Your task to perform on an android device: open app "Expedia: Hotels, Flights & Car" (install if not already installed) and enter user name: "crusader@outlook.com" and password: "Toryize" Image 0: 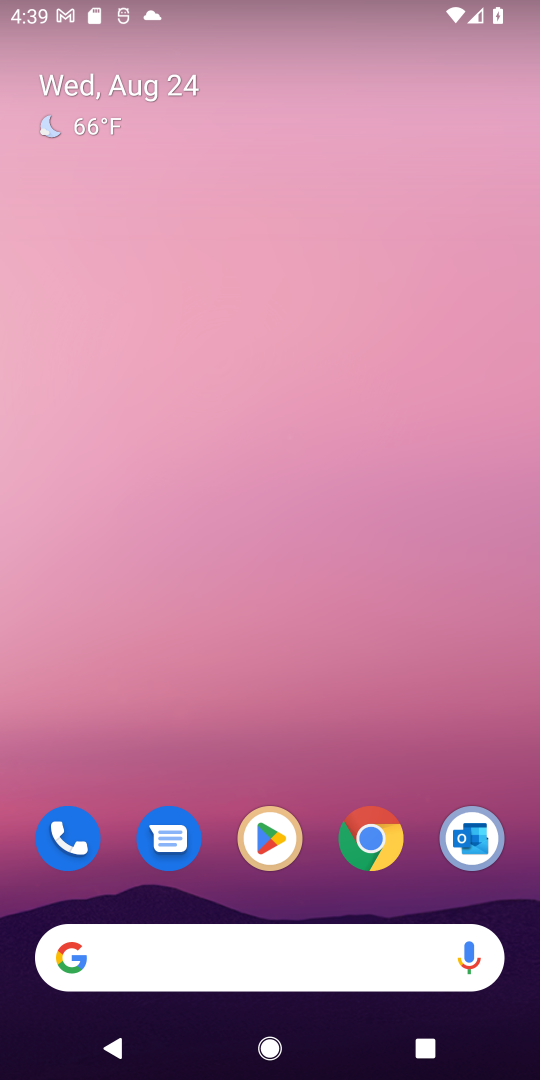
Step 0: press home button
Your task to perform on an android device: open app "Expedia: Hotels, Flights & Car" (install if not already installed) and enter user name: "crusader@outlook.com" and password: "Toryize" Image 1: 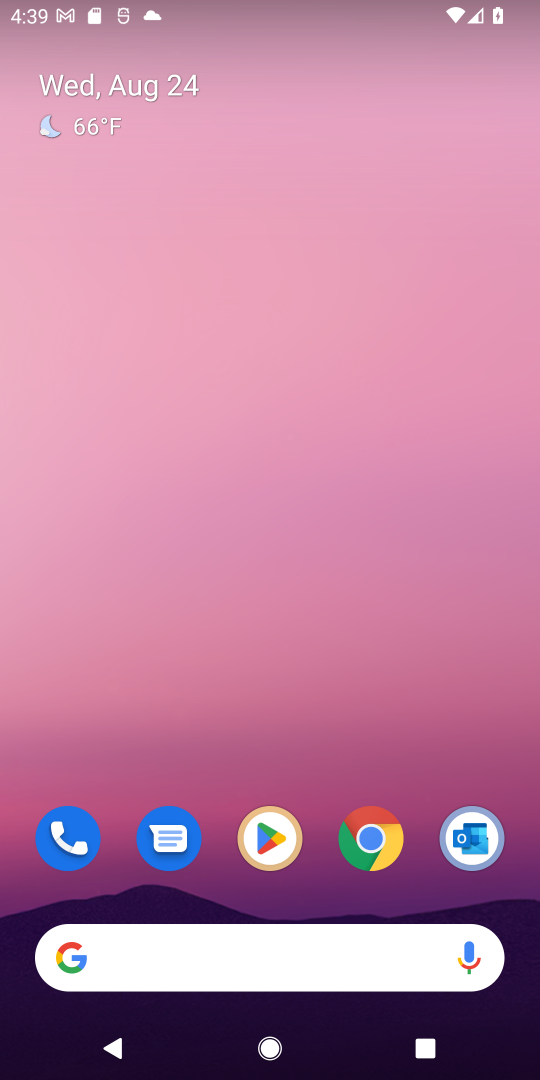
Step 1: click (266, 833)
Your task to perform on an android device: open app "Expedia: Hotels, Flights & Car" (install if not already installed) and enter user name: "crusader@outlook.com" and password: "Toryize" Image 2: 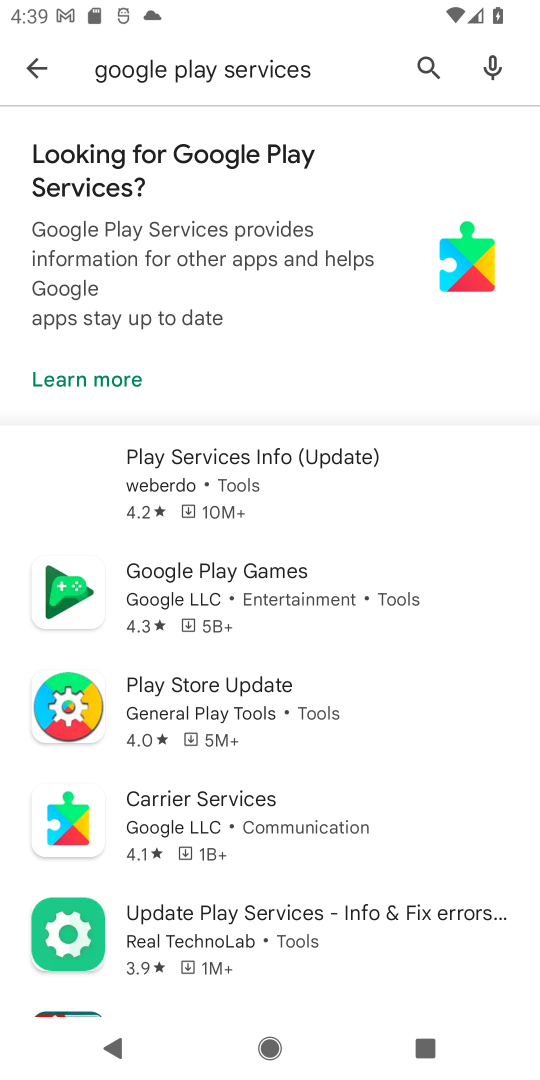
Step 2: click (427, 67)
Your task to perform on an android device: open app "Expedia: Hotels, Flights & Car" (install if not already installed) and enter user name: "crusader@outlook.com" and password: "Toryize" Image 3: 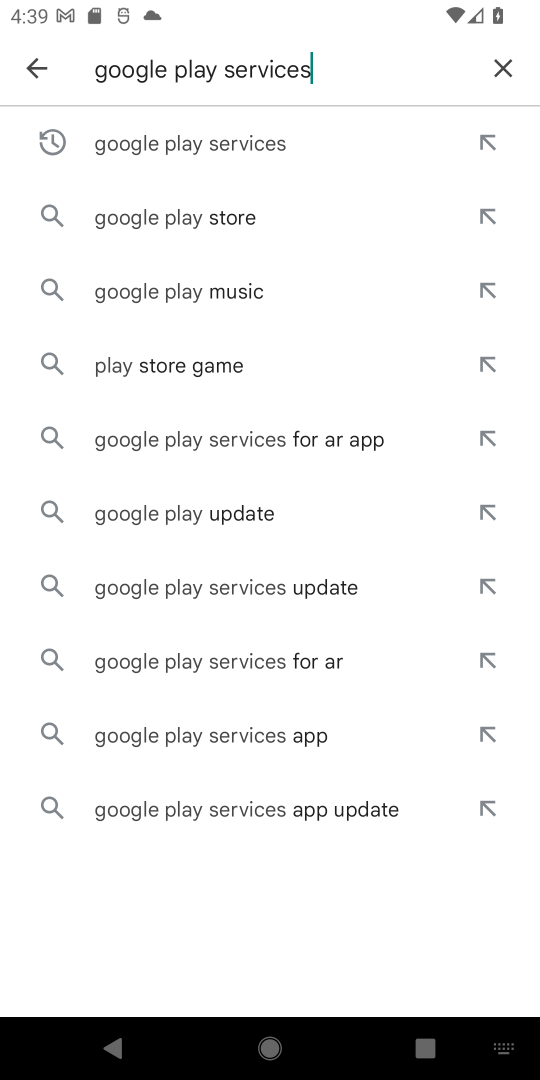
Step 3: click (507, 65)
Your task to perform on an android device: open app "Expedia: Hotels, Flights & Car" (install if not already installed) and enter user name: "crusader@outlook.com" and password: "Toryize" Image 4: 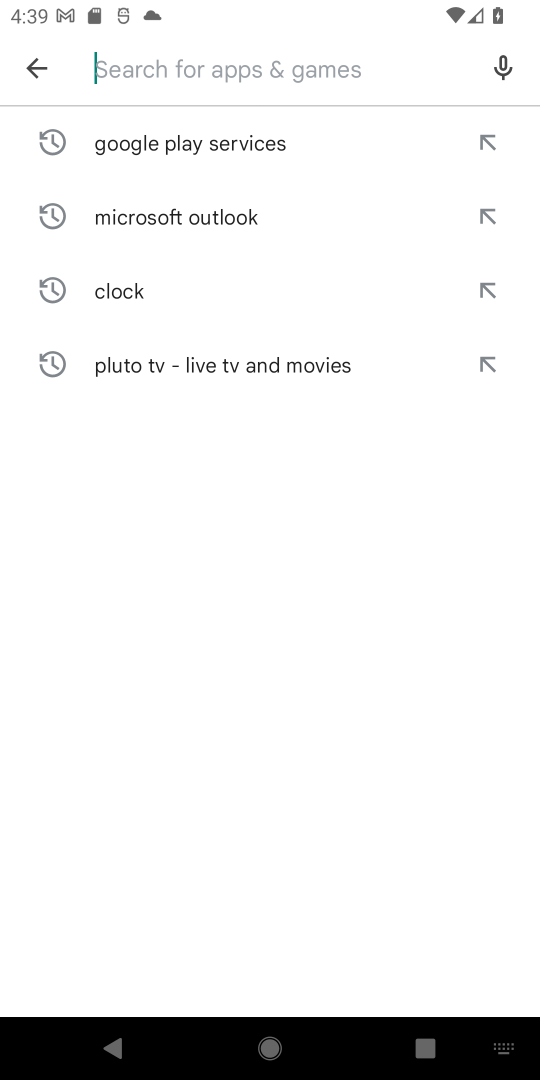
Step 4: type "Expedia: Hotels, Flights & Car"
Your task to perform on an android device: open app "Expedia: Hotels, Flights & Car" (install if not already installed) and enter user name: "crusader@outlook.com" and password: "Toryize" Image 5: 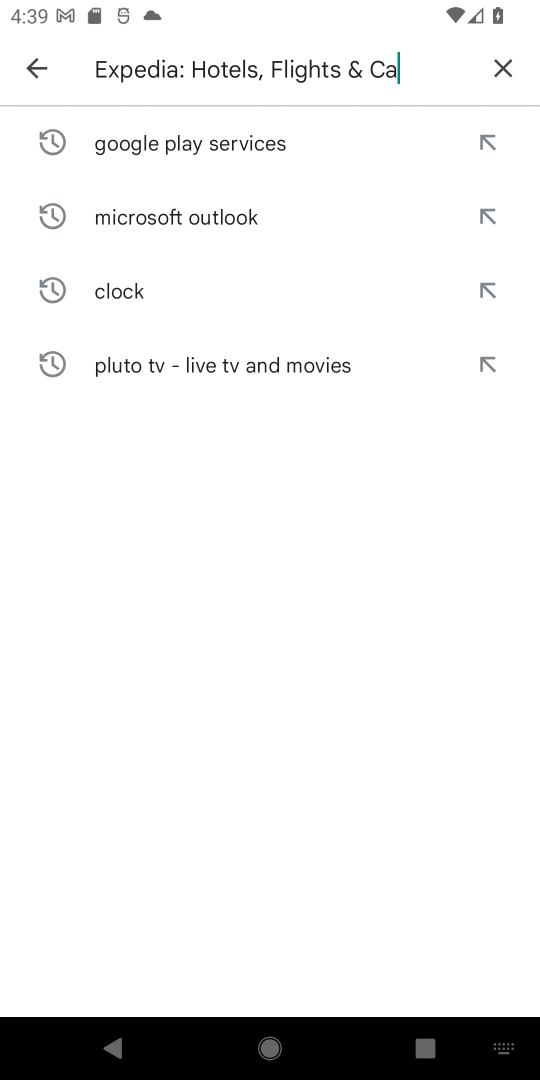
Step 5: type ""
Your task to perform on an android device: open app "Expedia: Hotels, Flights & Car" (install if not already installed) and enter user name: "crusader@outlook.com" and password: "Toryize" Image 6: 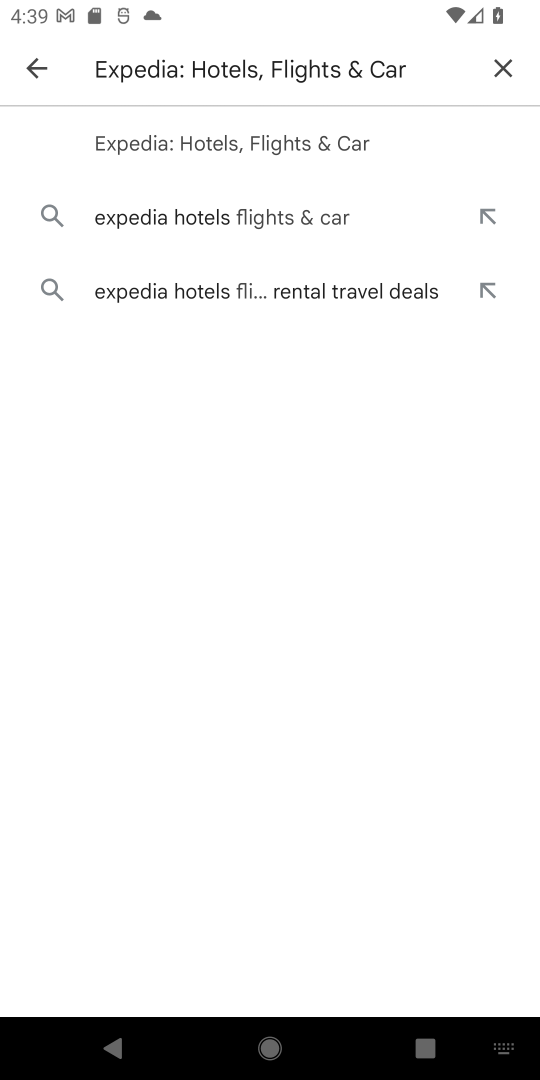
Step 6: click (312, 145)
Your task to perform on an android device: open app "Expedia: Hotels, Flights & Car" (install if not already installed) and enter user name: "crusader@outlook.com" and password: "Toryize" Image 7: 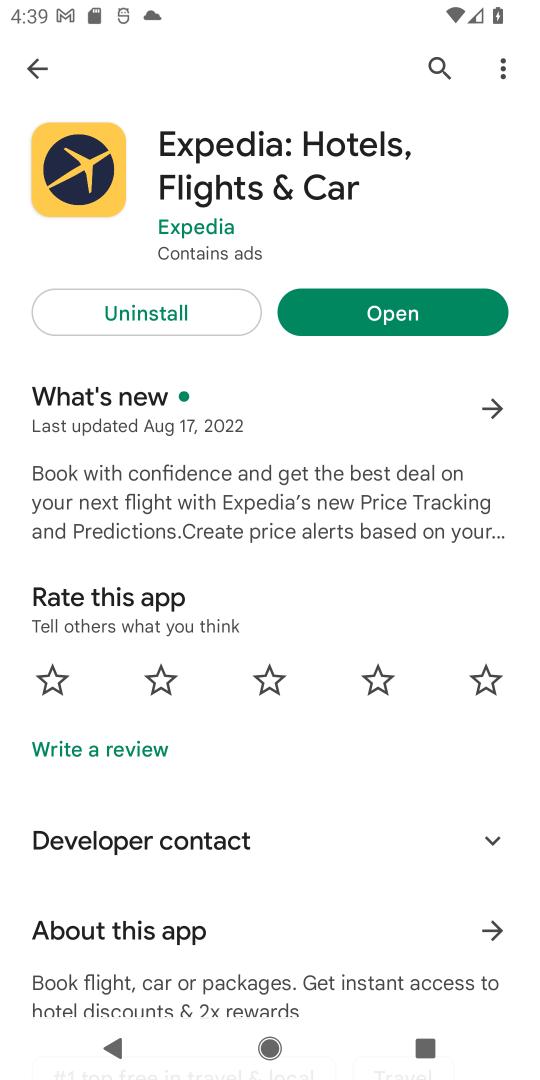
Step 7: click (389, 308)
Your task to perform on an android device: open app "Expedia: Hotels, Flights & Car" (install if not already installed) and enter user name: "crusader@outlook.com" and password: "Toryize" Image 8: 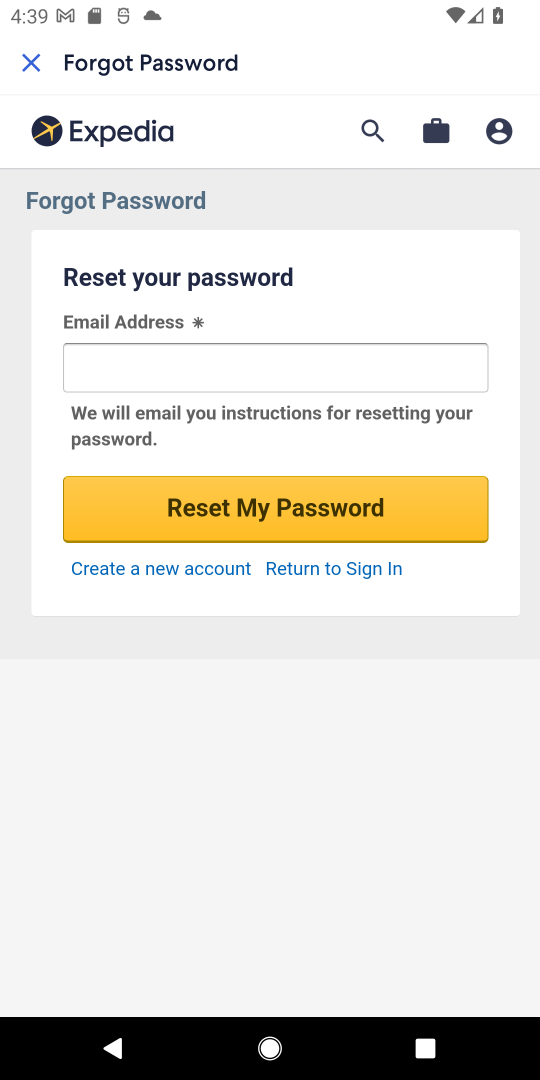
Step 8: click (29, 63)
Your task to perform on an android device: open app "Expedia: Hotels, Flights & Car" (install if not already installed) and enter user name: "crusader@outlook.com" and password: "Toryize" Image 9: 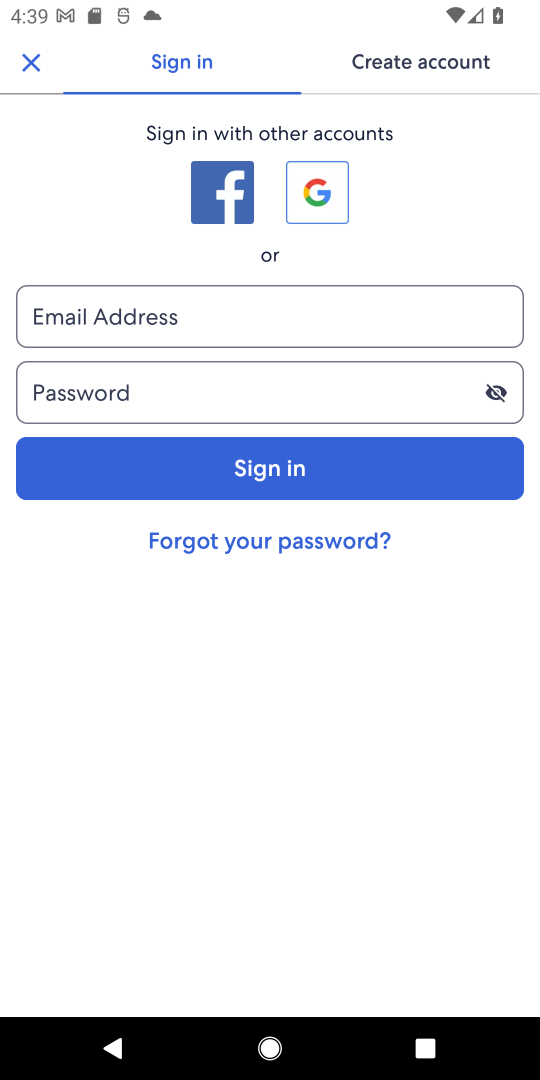
Step 9: click (149, 306)
Your task to perform on an android device: open app "Expedia: Hotels, Flights & Car" (install if not already installed) and enter user name: "crusader@outlook.com" and password: "Toryize" Image 10: 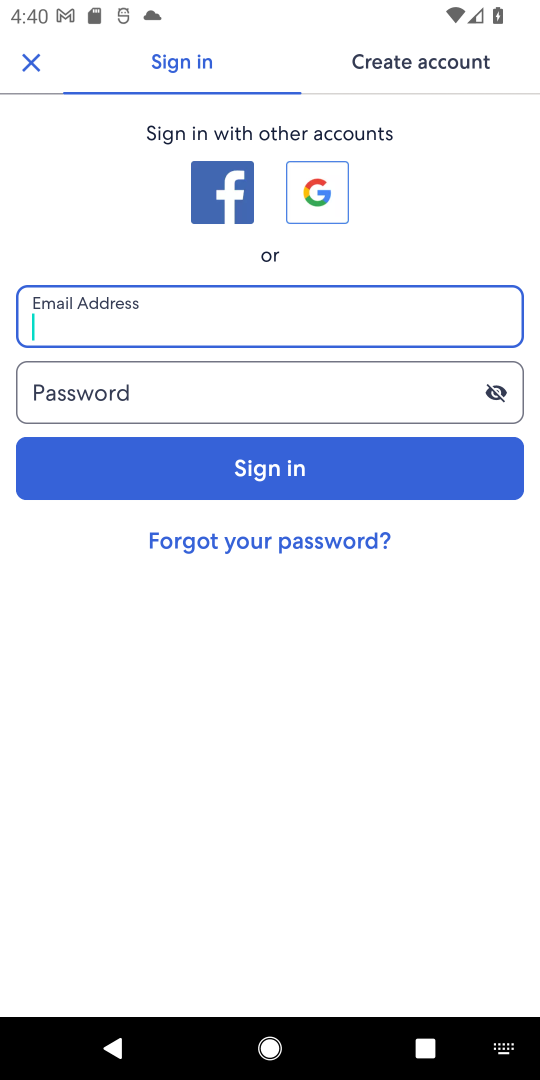
Step 10: type "crusader@outlook.com"
Your task to perform on an android device: open app "Expedia: Hotels, Flights & Car" (install if not already installed) and enter user name: "crusader@outlook.com" and password: "Toryize" Image 11: 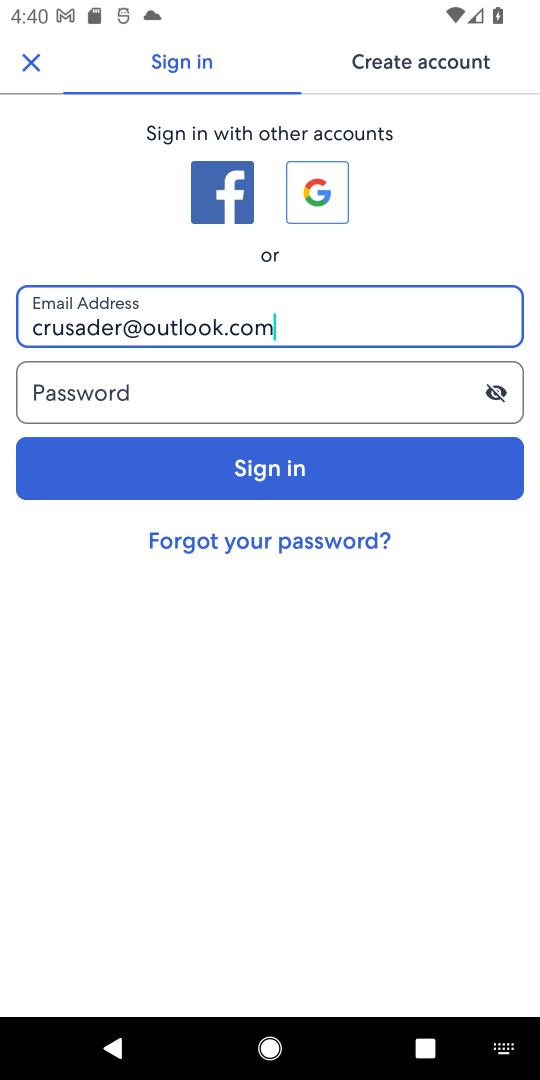
Step 11: click (98, 382)
Your task to perform on an android device: open app "Expedia: Hotels, Flights & Car" (install if not already installed) and enter user name: "crusader@outlook.com" and password: "Toryize" Image 12: 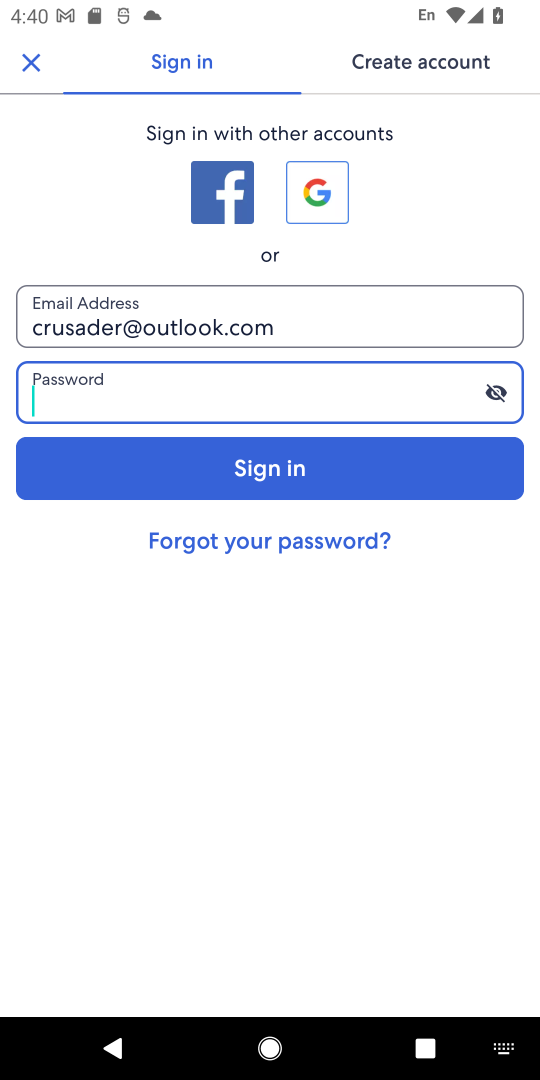
Step 12: type "Toryize"
Your task to perform on an android device: open app "Expedia: Hotels, Flights & Car" (install if not already installed) and enter user name: "crusader@outlook.com" and password: "Toryize" Image 13: 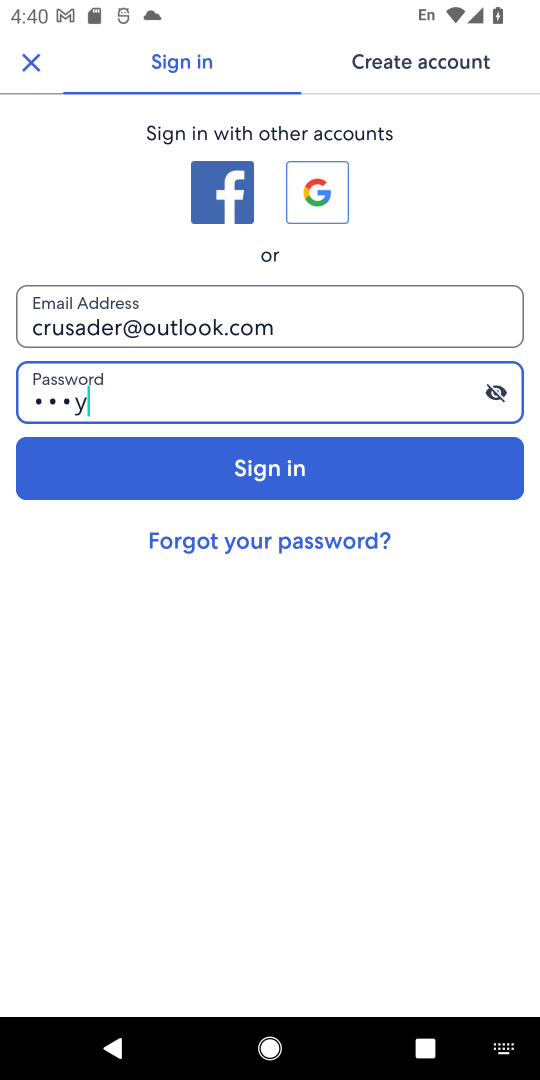
Step 13: type ""
Your task to perform on an android device: open app "Expedia: Hotels, Flights & Car" (install if not already installed) and enter user name: "crusader@outlook.com" and password: "Toryize" Image 14: 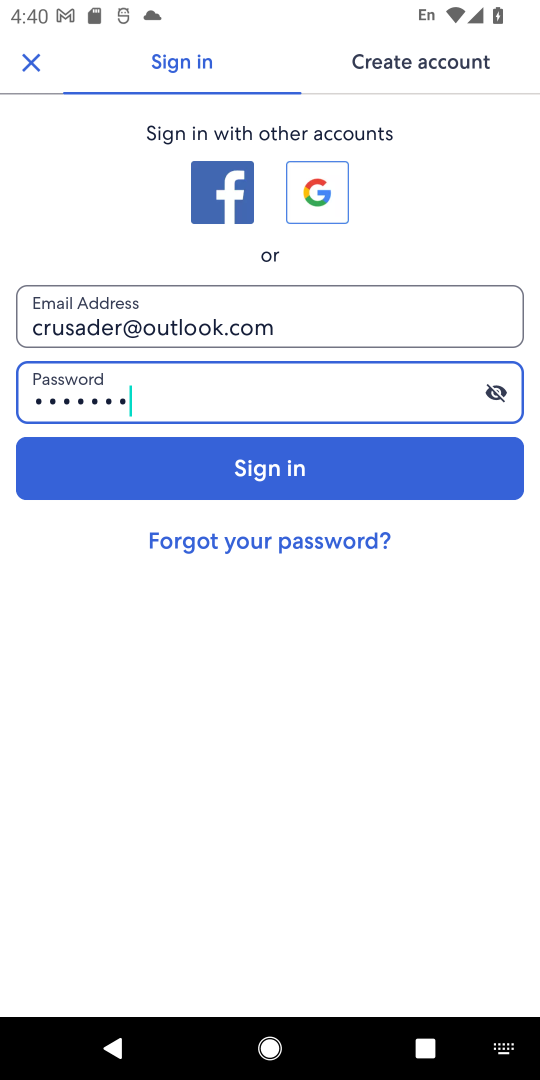
Step 14: click (285, 467)
Your task to perform on an android device: open app "Expedia: Hotels, Flights & Car" (install if not already installed) and enter user name: "crusader@outlook.com" and password: "Toryize" Image 15: 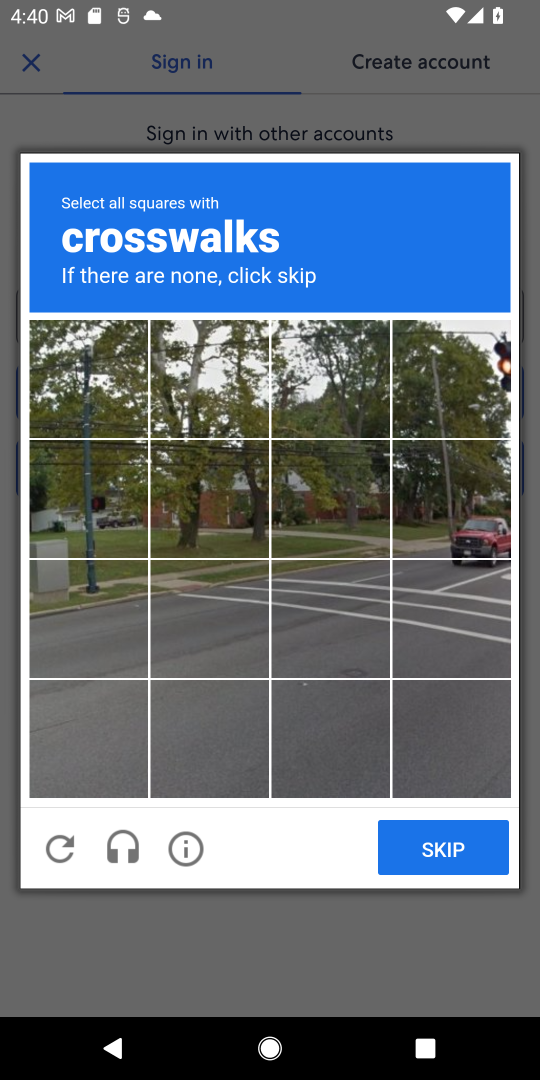
Step 15: click (208, 622)
Your task to perform on an android device: open app "Expedia: Hotels, Flights & Car" (install if not already installed) and enter user name: "crusader@outlook.com" and password: "Toryize" Image 16: 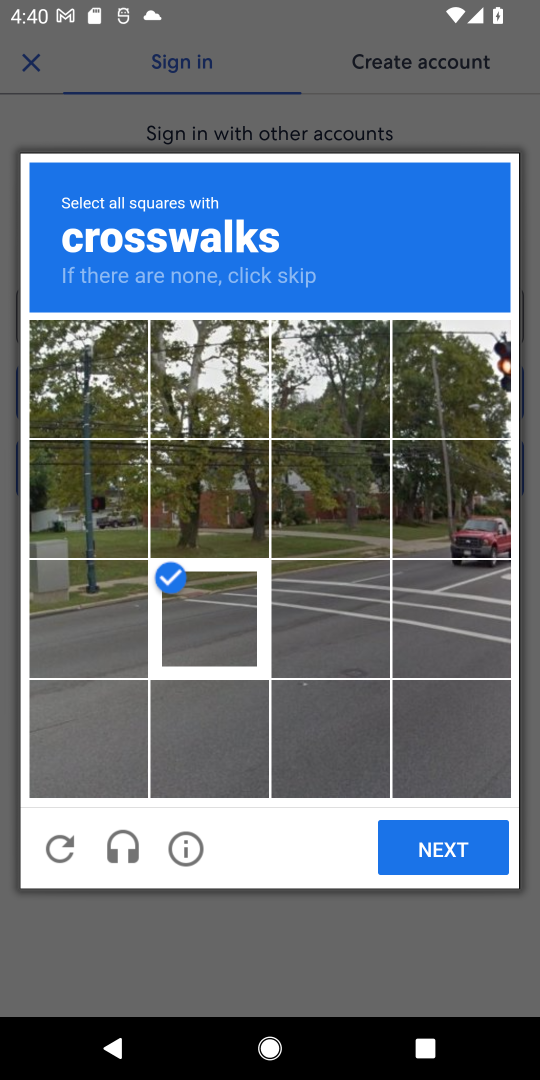
Step 16: click (323, 611)
Your task to perform on an android device: open app "Expedia: Hotels, Flights & Car" (install if not already installed) and enter user name: "crusader@outlook.com" and password: "Toryize" Image 17: 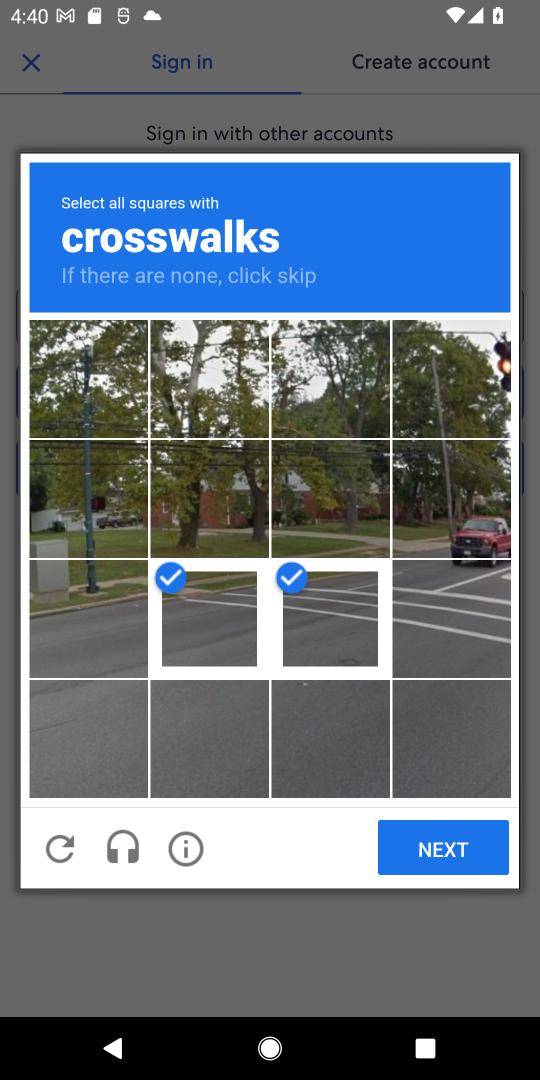
Step 17: click (444, 619)
Your task to perform on an android device: open app "Expedia: Hotels, Flights & Car" (install if not already installed) and enter user name: "crusader@outlook.com" and password: "Toryize" Image 18: 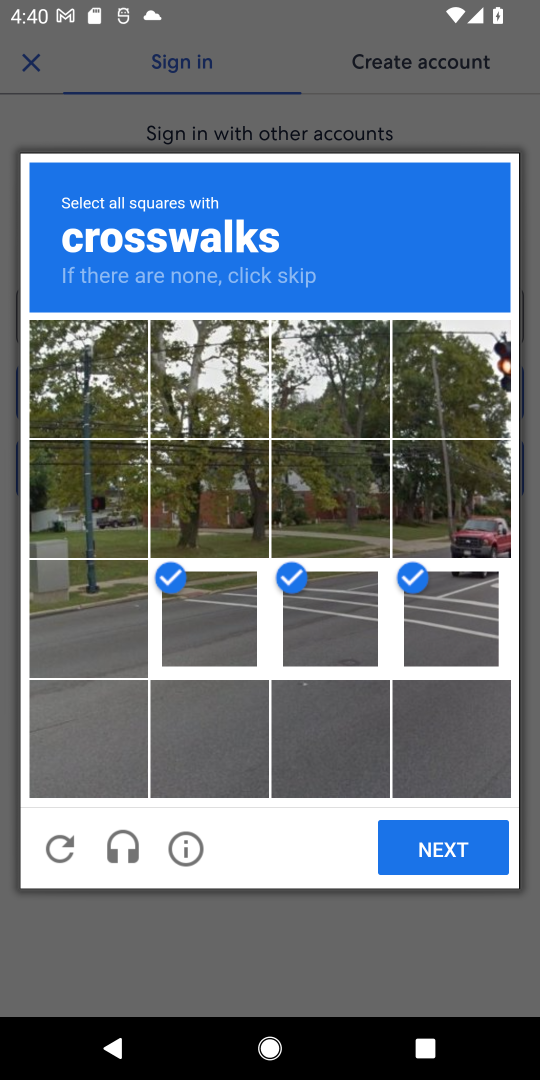
Step 18: click (484, 850)
Your task to perform on an android device: open app "Expedia: Hotels, Flights & Car" (install if not already installed) and enter user name: "crusader@outlook.com" and password: "Toryize" Image 19: 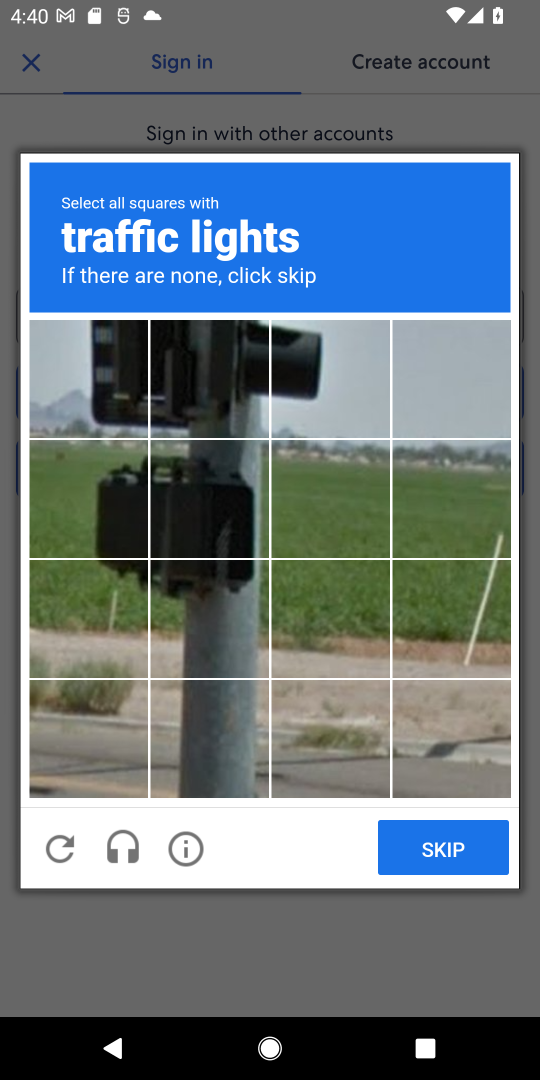
Step 19: click (72, 380)
Your task to perform on an android device: open app "Expedia: Hotels, Flights & Car" (install if not already installed) and enter user name: "crusader@outlook.com" and password: "Toryize" Image 20: 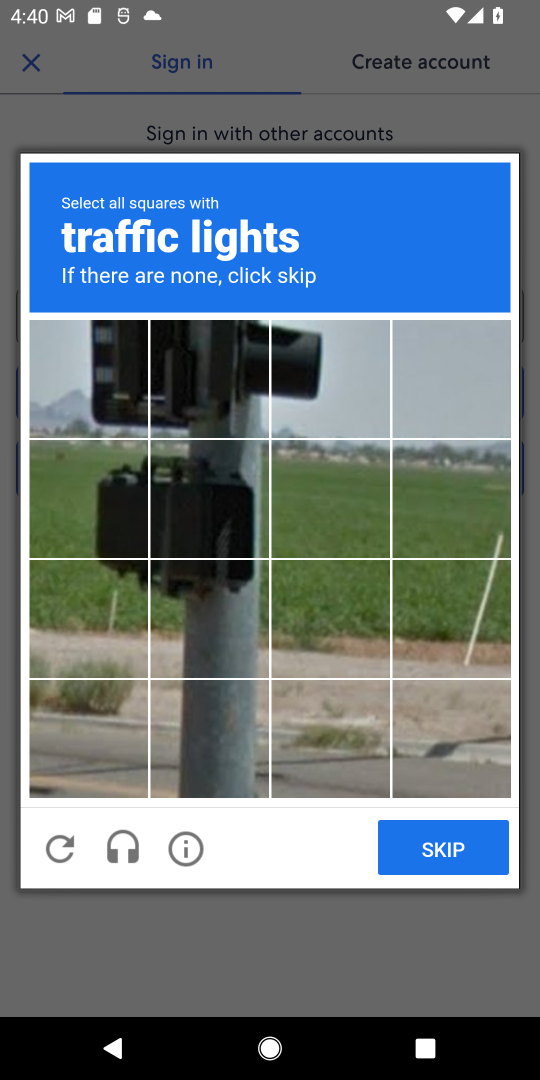
Step 20: click (175, 384)
Your task to perform on an android device: open app "Expedia: Hotels, Flights & Car" (install if not already installed) and enter user name: "crusader@outlook.com" and password: "Toryize" Image 21: 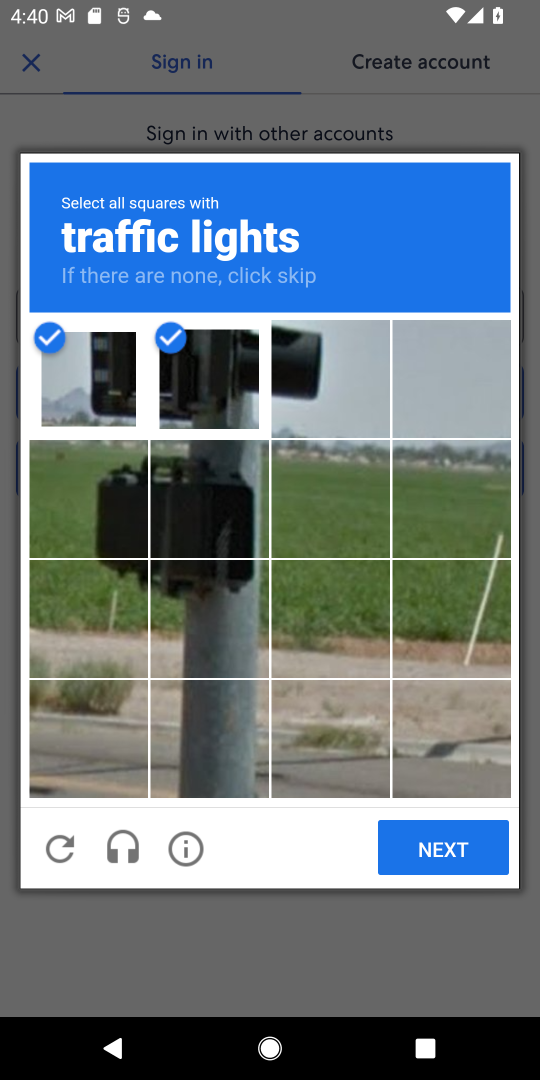
Step 21: drag from (327, 383) to (218, 527)
Your task to perform on an android device: open app "Expedia: Hotels, Flights & Car" (install if not already installed) and enter user name: "crusader@outlook.com" and password: "Toryize" Image 22: 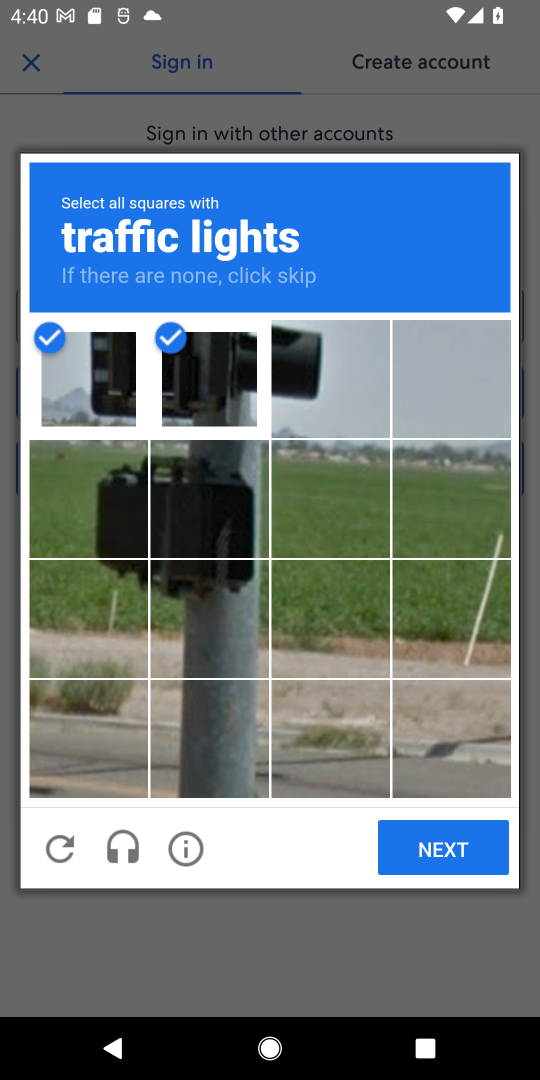
Step 22: click (66, 540)
Your task to perform on an android device: open app "Expedia: Hotels, Flights & Car" (install if not already installed) and enter user name: "crusader@outlook.com" and password: "Toryize" Image 23: 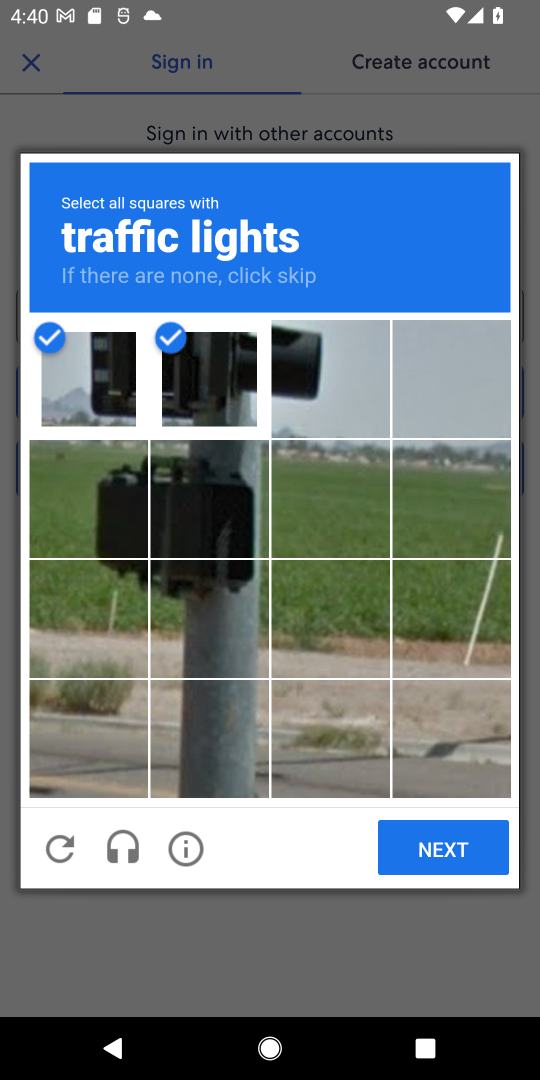
Step 23: click (114, 620)
Your task to perform on an android device: open app "Expedia: Hotels, Flights & Car" (install if not already installed) and enter user name: "crusader@outlook.com" and password: "Toryize" Image 24: 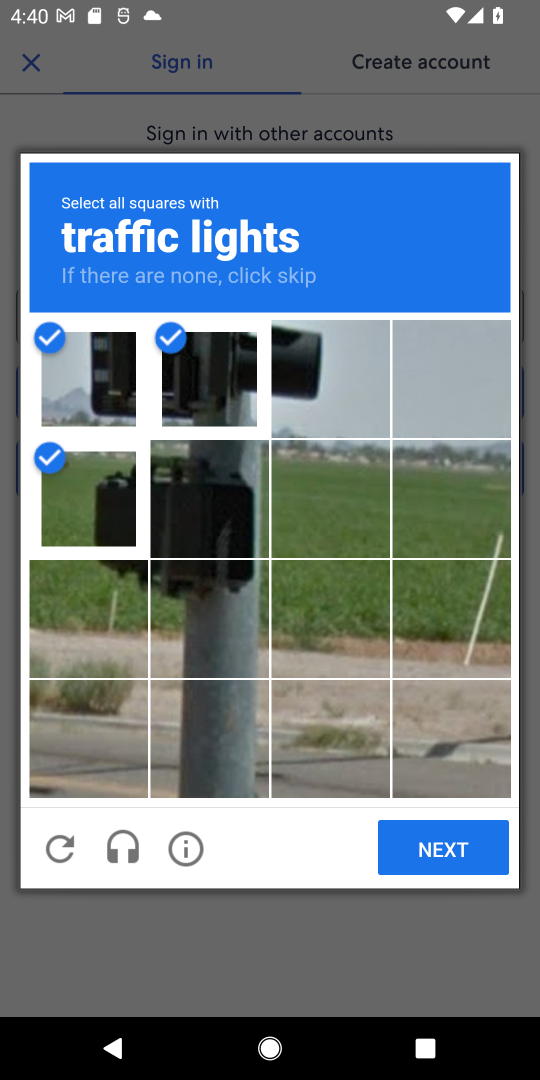
Step 24: click (195, 620)
Your task to perform on an android device: open app "Expedia: Hotels, Flights & Car" (install if not already installed) and enter user name: "crusader@outlook.com" and password: "Toryize" Image 25: 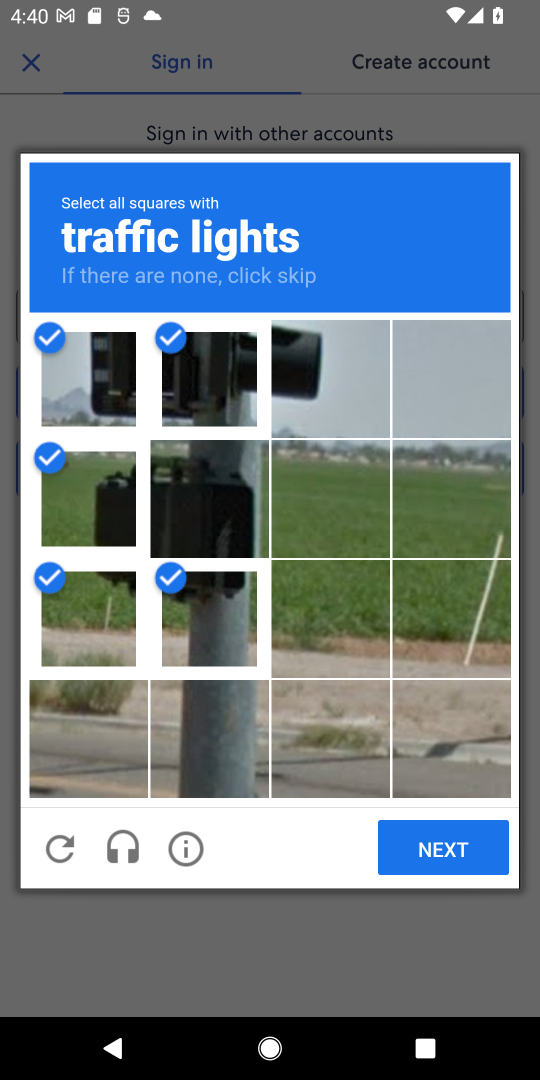
Step 25: click (349, 354)
Your task to perform on an android device: open app "Expedia: Hotels, Flights & Car" (install if not already installed) and enter user name: "crusader@outlook.com" and password: "Toryize" Image 26: 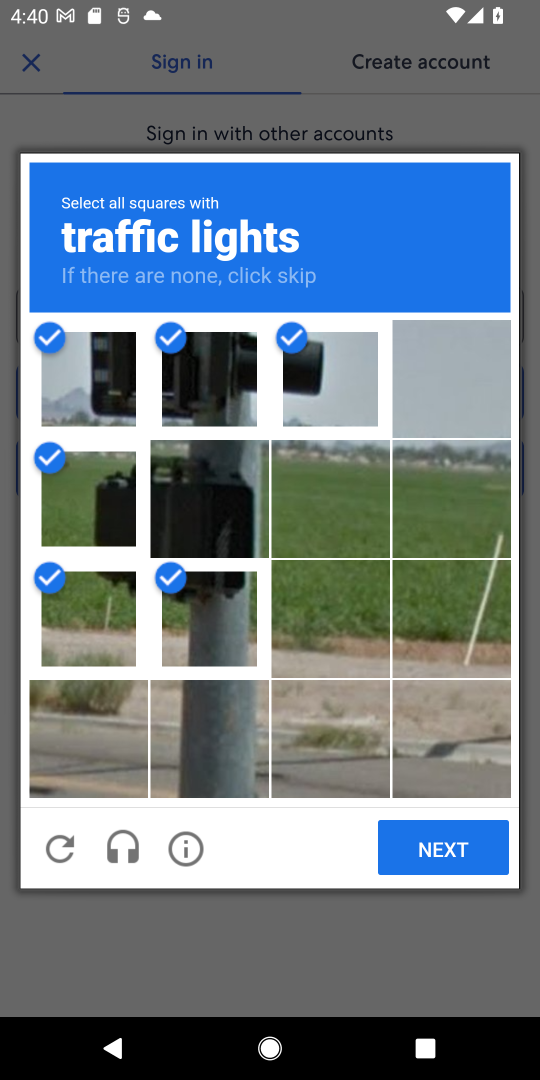
Step 26: click (197, 489)
Your task to perform on an android device: open app "Expedia: Hotels, Flights & Car" (install if not already installed) and enter user name: "crusader@outlook.com" and password: "Toryize" Image 27: 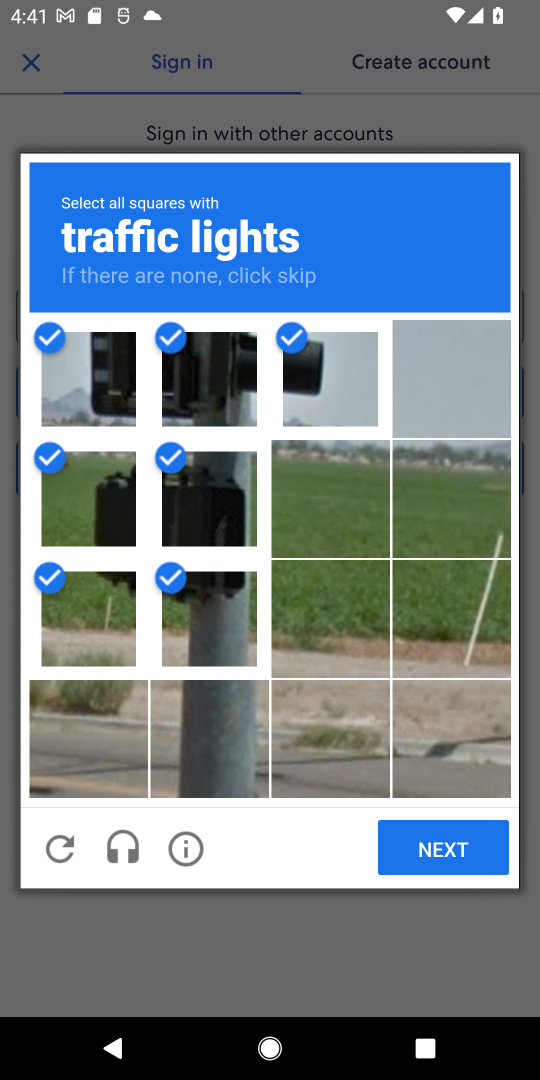
Step 27: click (463, 844)
Your task to perform on an android device: open app "Expedia: Hotels, Flights & Car" (install if not already installed) and enter user name: "crusader@outlook.com" and password: "Toryize" Image 28: 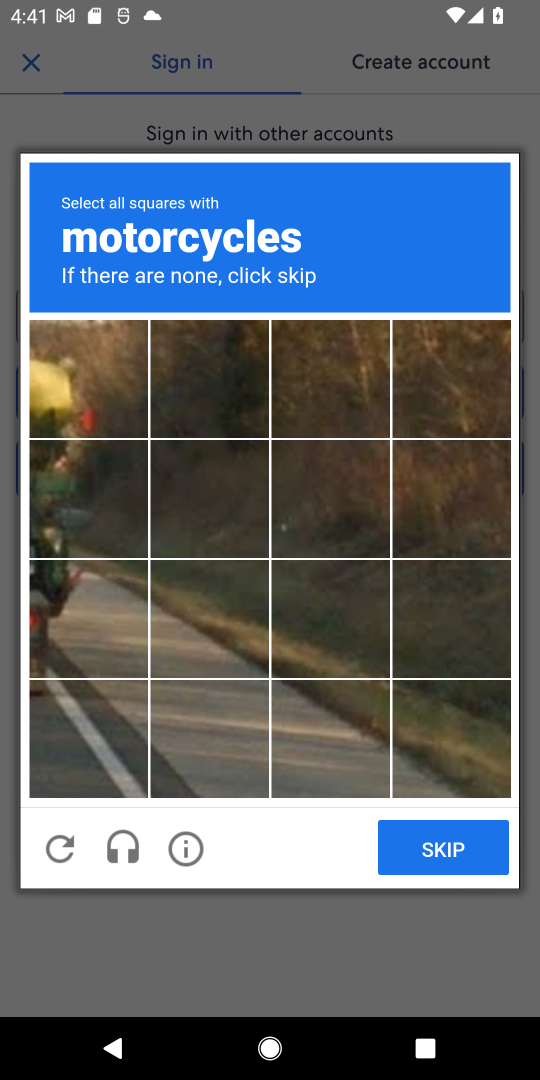
Step 28: click (76, 488)
Your task to perform on an android device: open app "Expedia: Hotels, Flights & Car" (install if not already installed) and enter user name: "crusader@outlook.com" and password: "Toryize" Image 29: 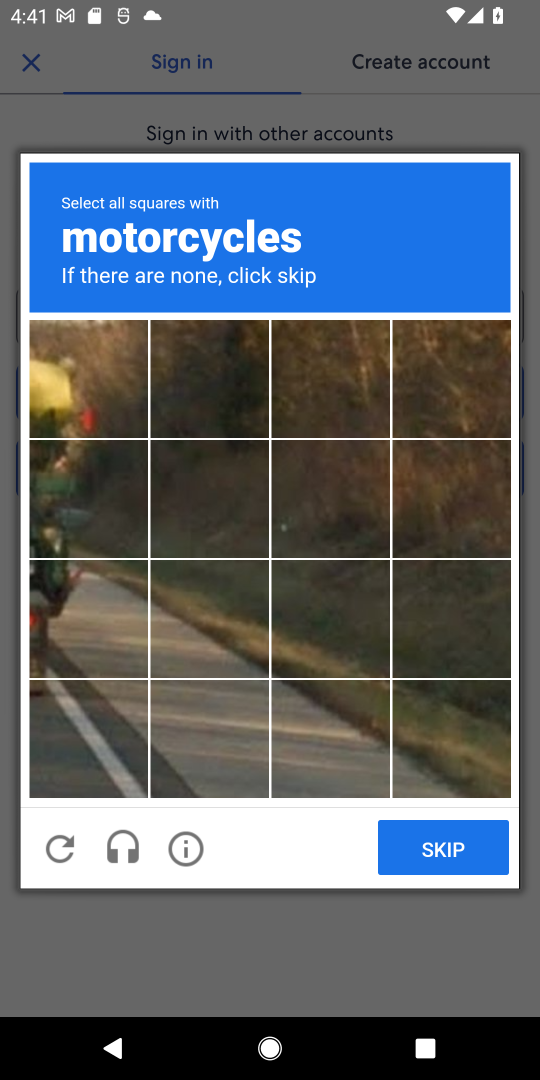
Step 29: click (67, 600)
Your task to perform on an android device: open app "Expedia: Hotels, Flights & Car" (install if not already installed) and enter user name: "crusader@outlook.com" and password: "Toryize" Image 30: 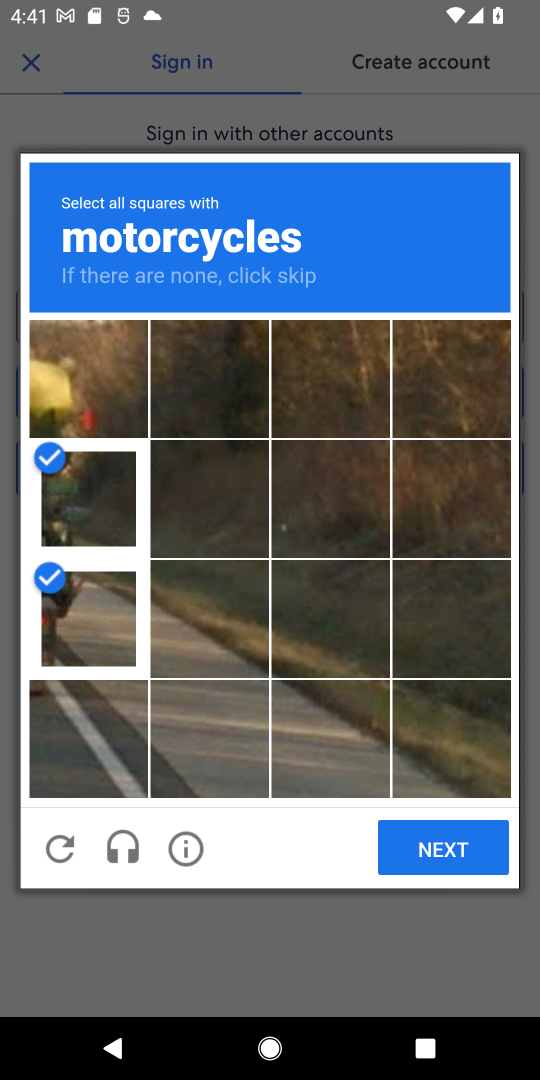
Step 30: click (429, 855)
Your task to perform on an android device: open app "Expedia: Hotels, Flights & Car" (install if not already installed) and enter user name: "crusader@outlook.com" and password: "Toryize" Image 31: 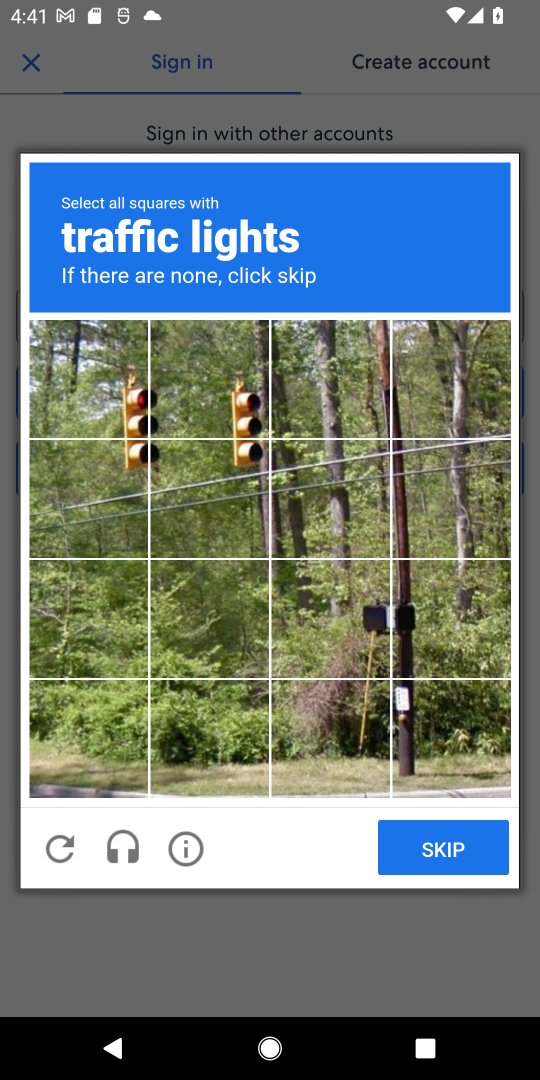
Step 31: click (79, 410)
Your task to perform on an android device: open app "Expedia: Hotels, Flights & Car" (install if not already installed) and enter user name: "crusader@outlook.com" and password: "Toryize" Image 32: 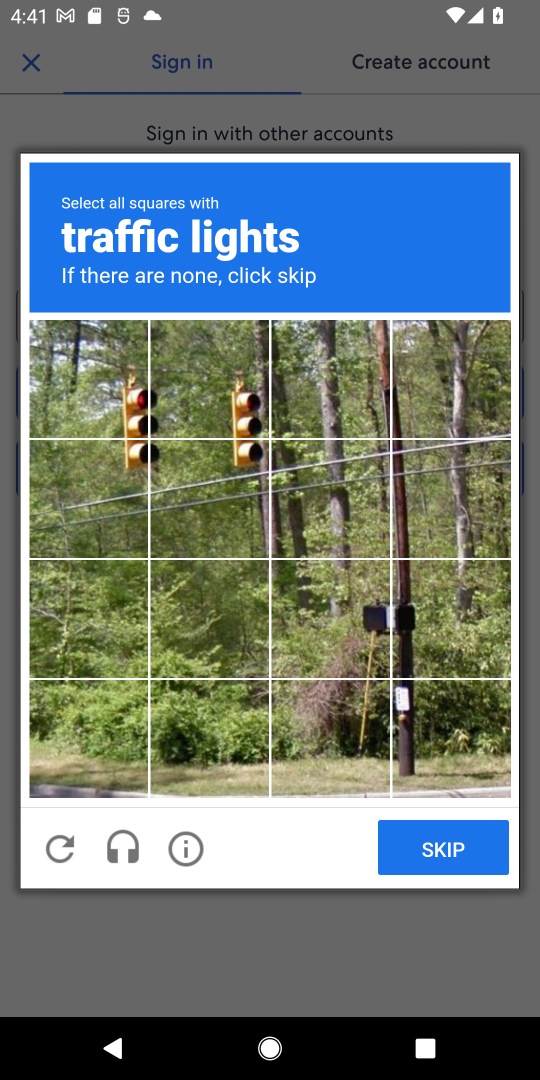
Step 32: click (189, 415)
Your task to perform on an android device: open app "Expedia: Hotels, Flights & Car" (install if not already installed) and enter user name: "crusader@outlook.com" and password: "Toryize" Image 33: 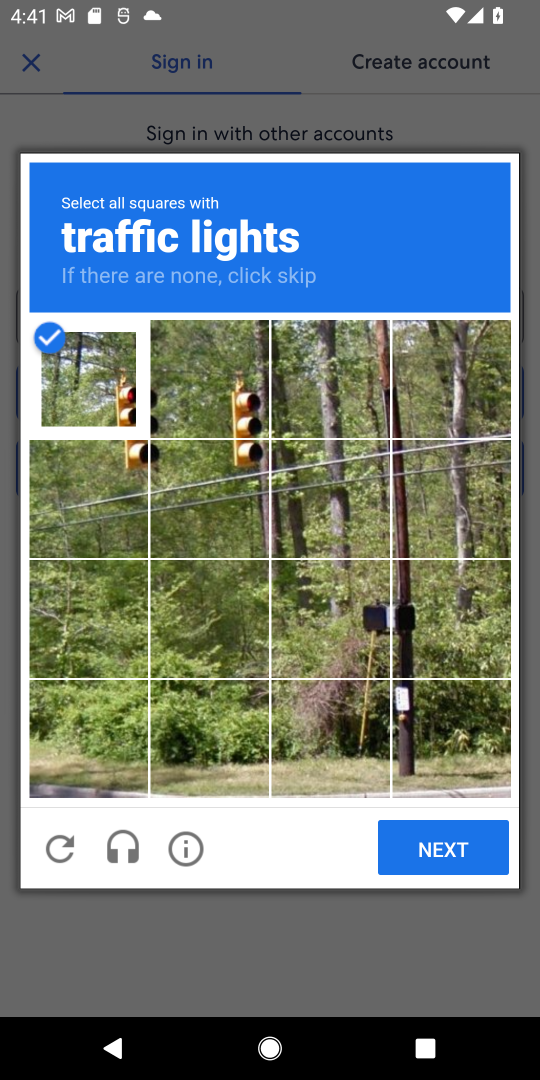
Step 33: click (205, 491)
Your task to perform on an android device: open app "Expedia: Hotels, Flights & Car" (install if not already installed) and enter user name: "crusader@outlook.com" and password: "Toryize" Image 34: 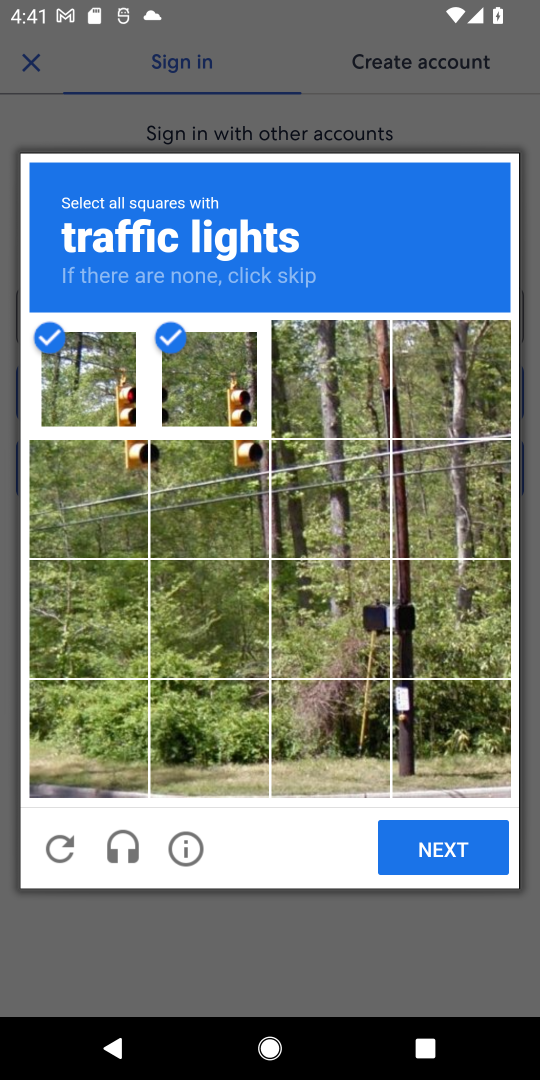
Step 34: click (67, 519)
Your task to perform on an android device: open app "Expedia: Hotels, Flights & Car" (install if not already installed) and enter user name: "crusader@outlook.com" and password: "Toryize" Image 35: 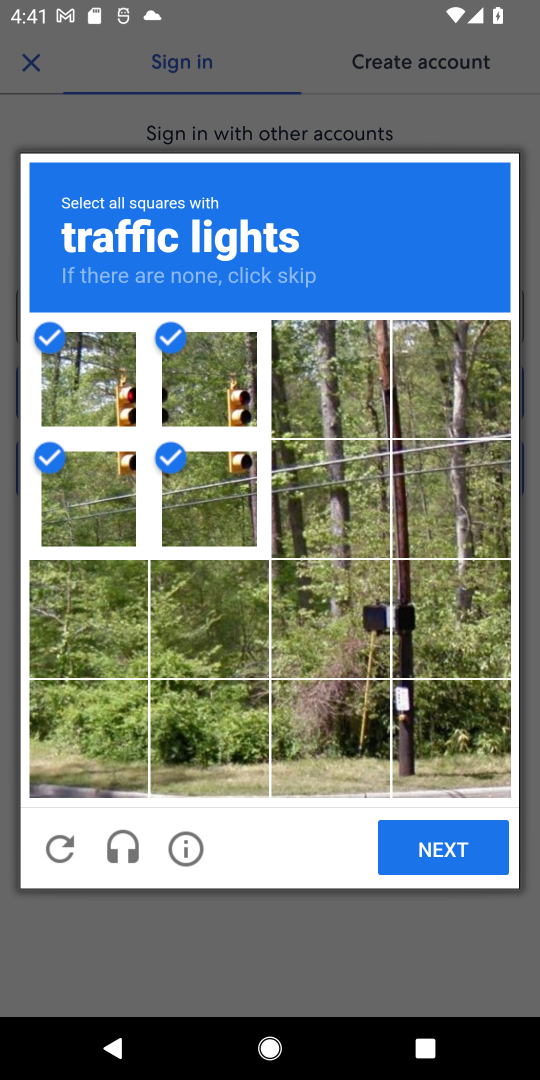
Step 35: click (436, 858)
Your task to perform on an android device: open app "Expedia: Hotels, Flights & Car" (install if not already installed) and enter user name: "crusader@outlook.com" and password: "Toryize" Image 36: 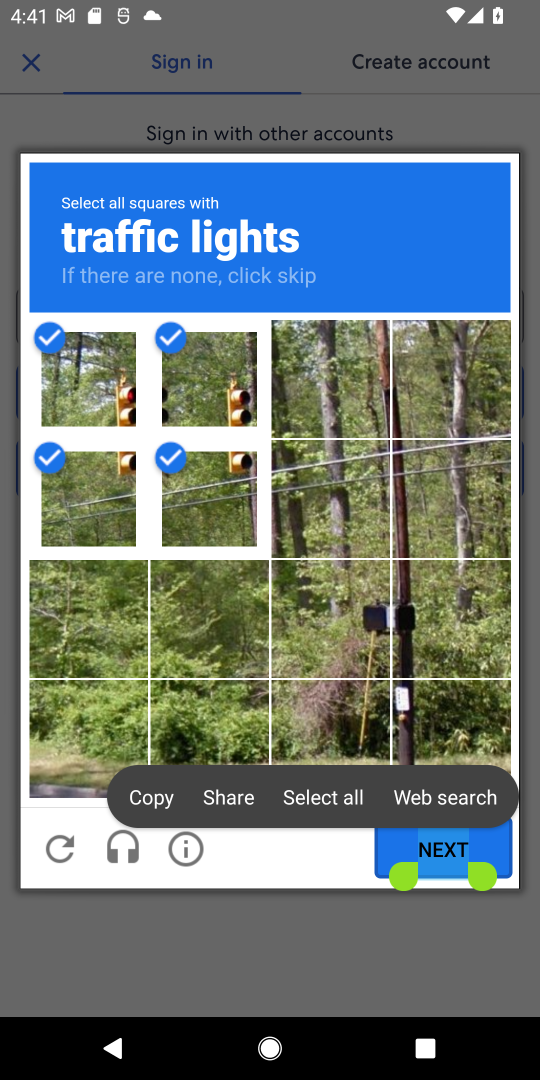
Step 36: click (451, 882)
Your task to perform on an android device: open app "Expedia: Hotels, Flights & Car" (install if not already installed) and enter user name: "crusader@outlook.com" and password: "Toryize" Image 37: 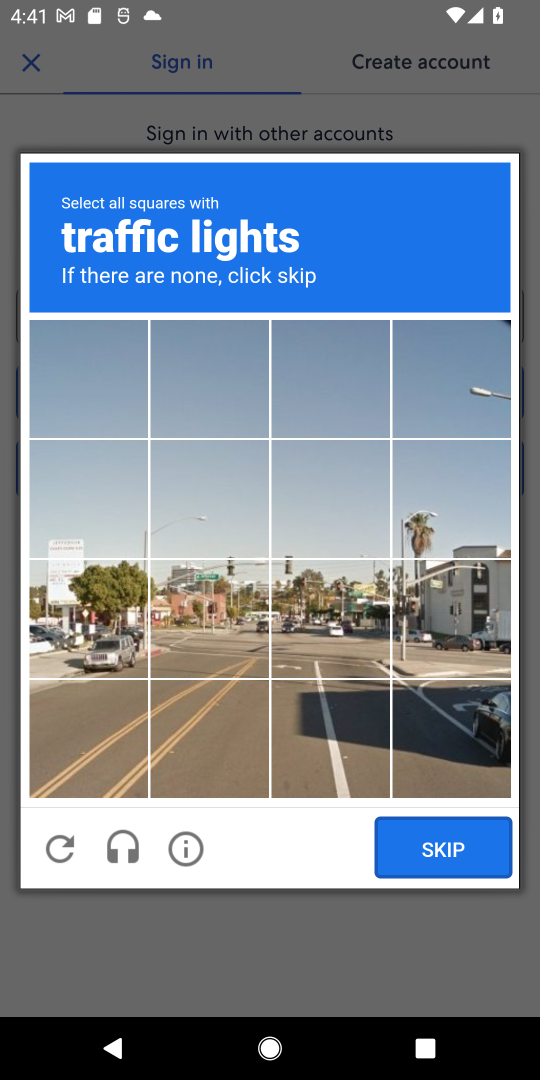
Step 37: click (463, 387)
Your task to perform on an android device: open app "Expedia: Hotels, Flights & Car" (install if not already installed) and enter user name: "crusader@outlook.com" and password: "Toryize" Image 38: 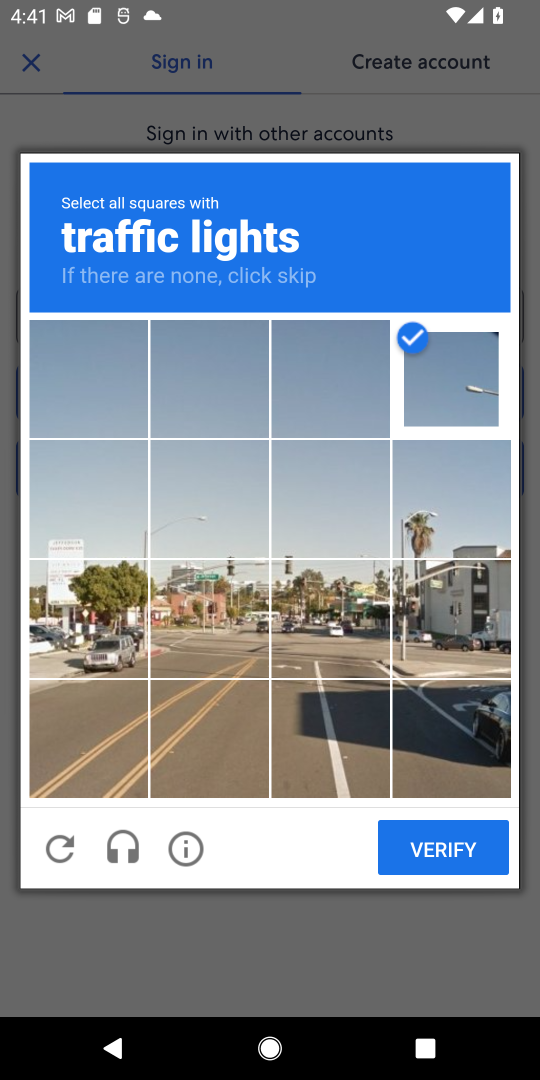
Step 38: click (439, 845)
Your task to perform on an android device: open app "Expedia: Hotels, Flights & Car" (install if not already installed) and enter user name: "crusader@outlook.com" and password: "Toryize" Image 39: 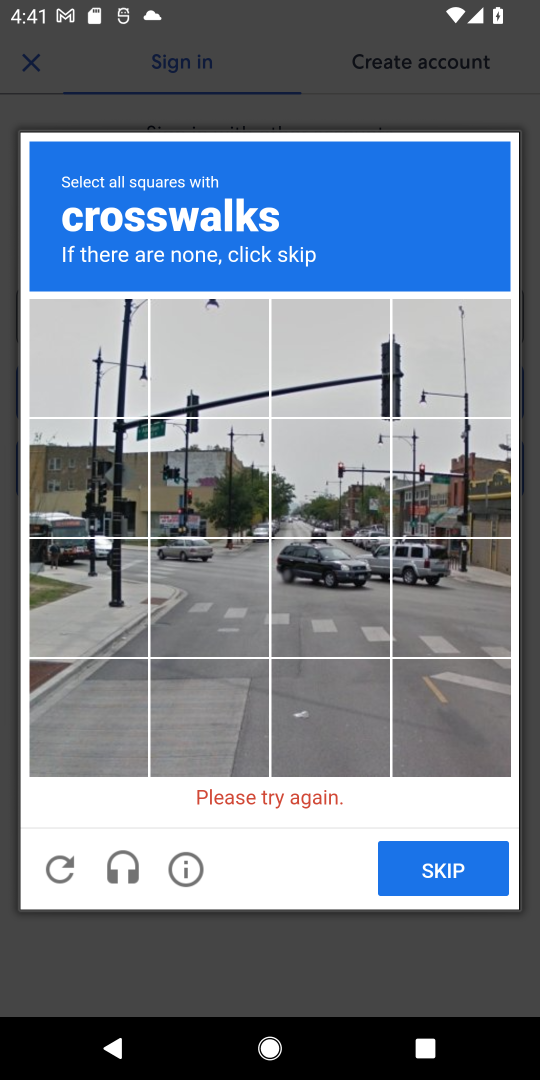
Step 39: click (169, 602)
Your task to perform on an android device: open app "Expedia: Hotels, Flights & Car" (install if not already installed) and enter user name: "crusader@outlook.com" and password: "Toryize" Image 40: 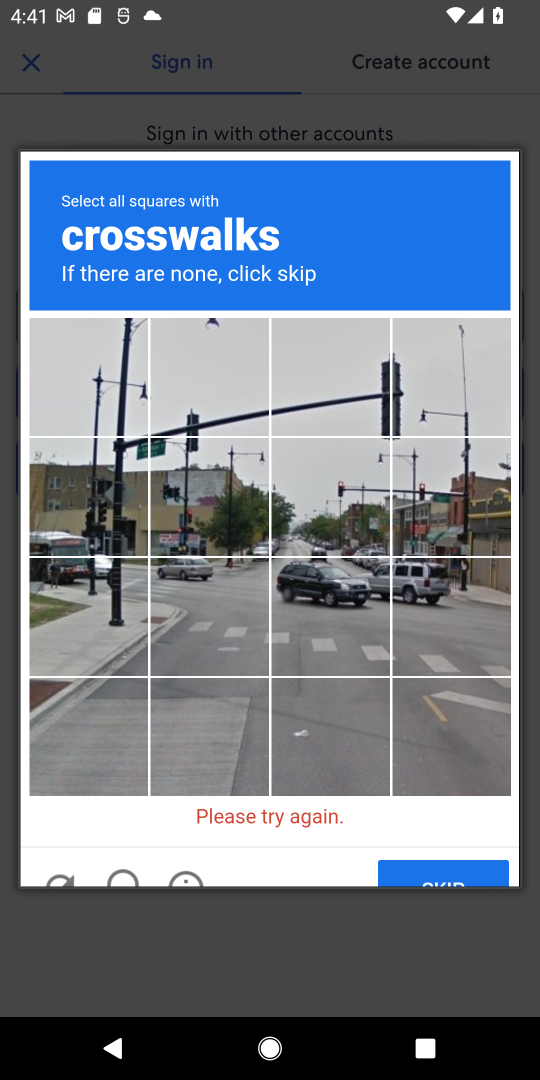
Step 40: click (340, 616)
Your task to perform on an android device: open app "Expedia: Hotels, Flights & Car" (install if not already installed) and enter user name: "crusader@outlook.com" and password: "Toryize" Image 41: 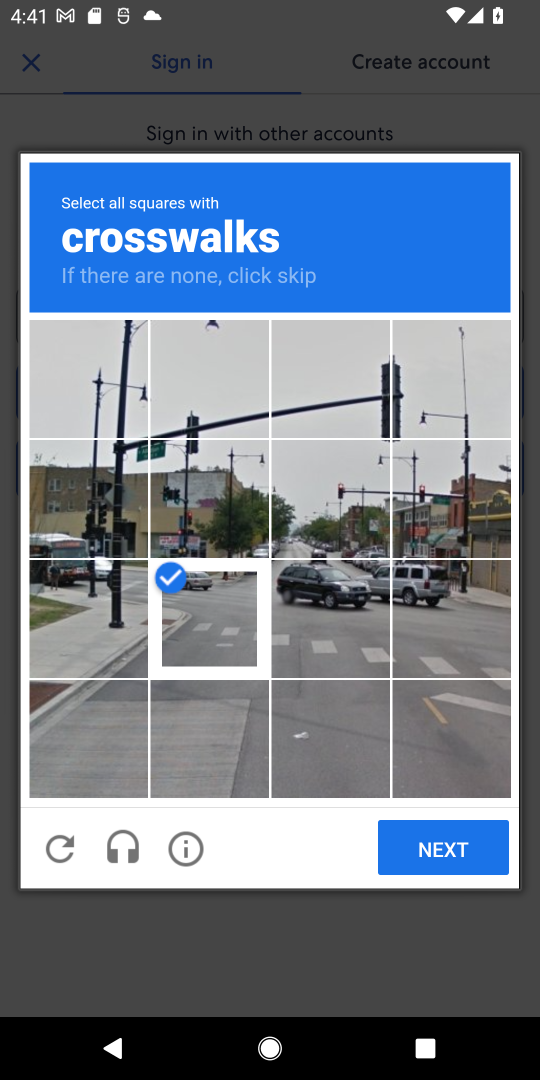
Step 41: click (440, 622)
Your task to perform on an android device: open app "Expedia: Hotels, Flights & Car" (install if not already installed) and enter user name: "crusader@outlook.com" and password: "Toryize" Image 42: 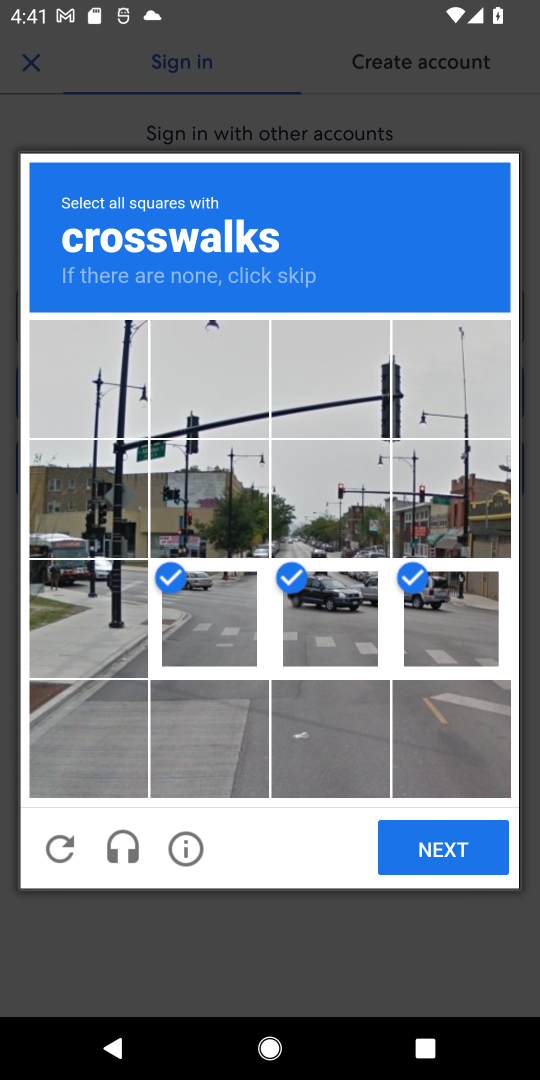
Step 42: click (474, 868)
Your task to perform on an android device: open app "Expedia: Hotels, Flights & Car" (install if not already installed) and enter user name: "crusader@outlook.com" and password: "Toryize" Image 43: 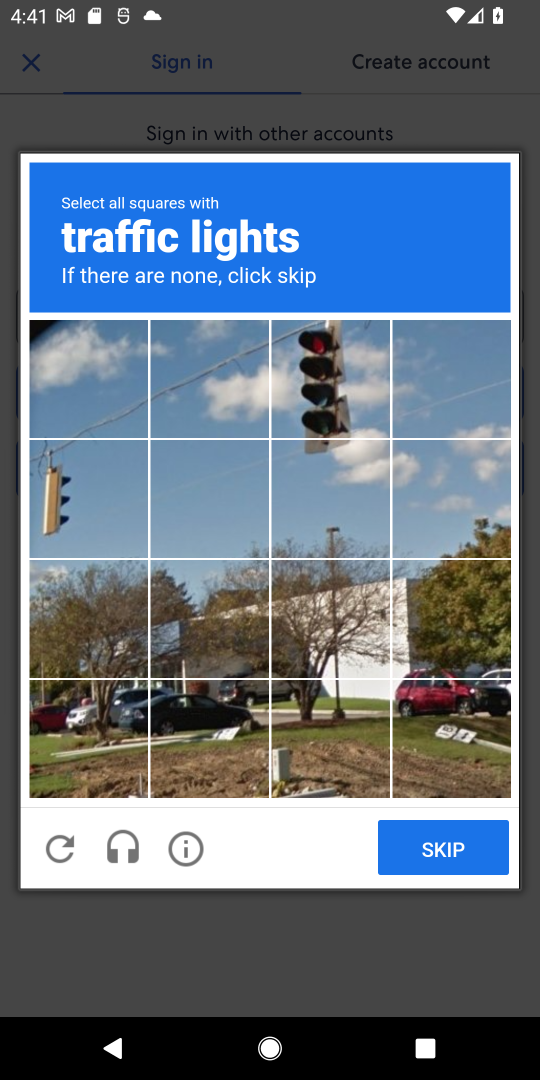
Step 43: task complete